Your task to perform on an android device: Search for the new Nike Air Jordan 33 on Nike.com Image 0: 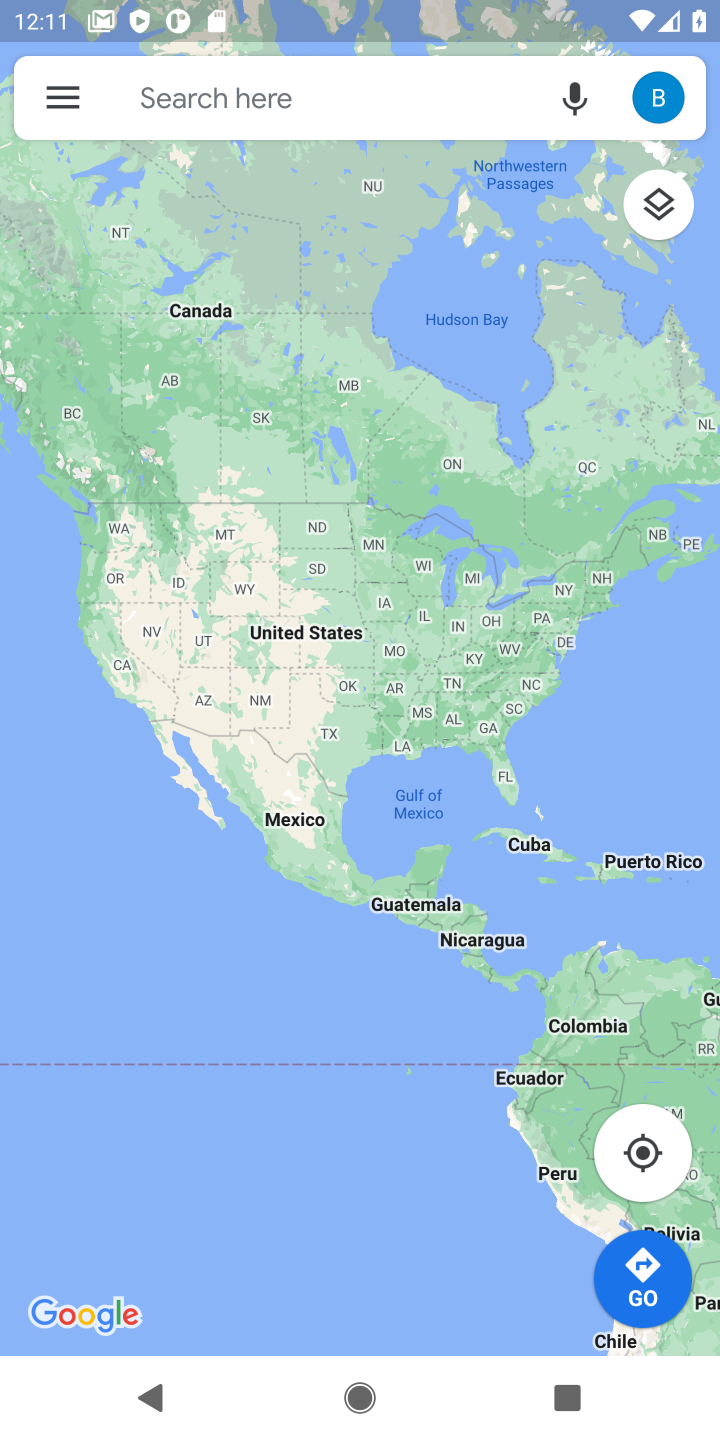
Step 0: task complete